Your task to perform on an android device: Check the weather Image 0: 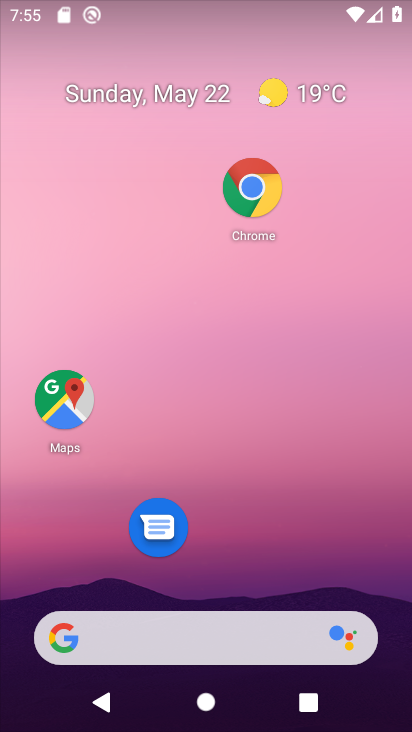
Step 0: click (280, 89)
Your task to perform on an android device: Check the weather Image 1: 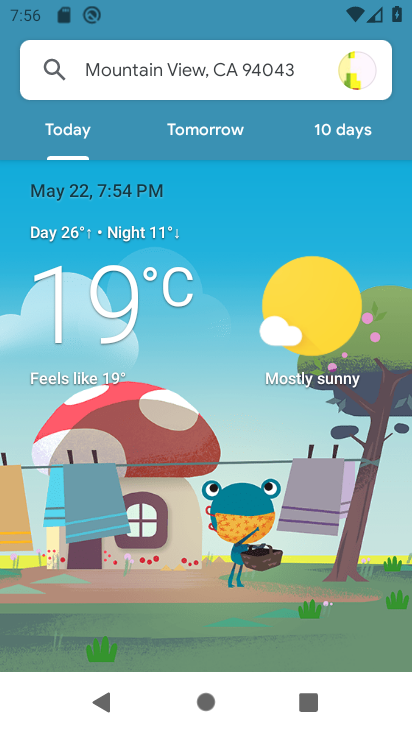
Step 1: drag from (214, 623) to (242, 143)
Your task to perform on an android device: Check the weather Image 2: 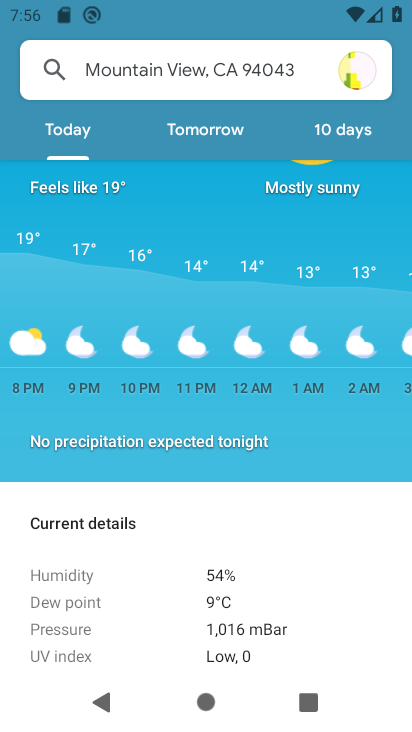
Step 2: drag from (361, 343) to (24, 352)
Your task to perform on an android device: Check the weather Image 3: 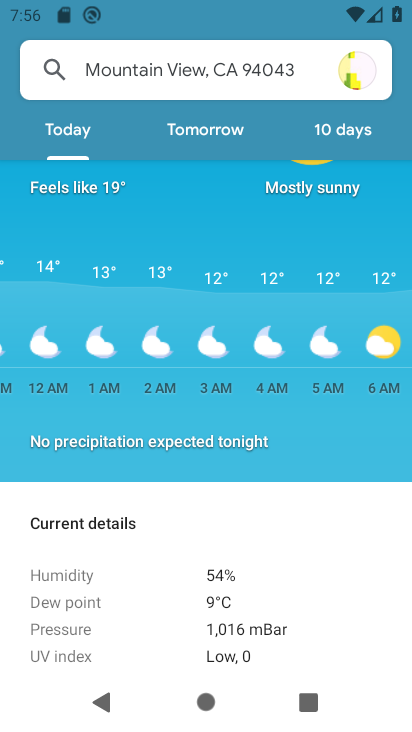
Step 3: drag from (385, 346) to (97, 355)
Your task to perform on an android device: Check the weather Image 4: 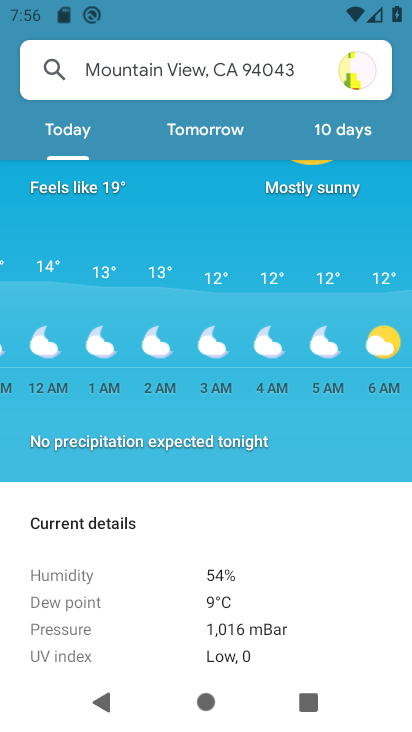
Step 4: drag from (381, 385) to (307, 385)
Your task to perform on an android device: Check the weather Image 5: 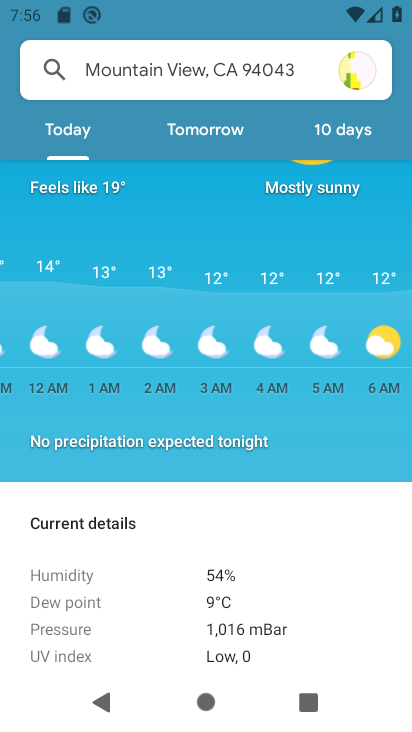
Step 5: drag from (385, 383) to (51, 369)
Your task to perform on an android device: Check the weather Image 6: 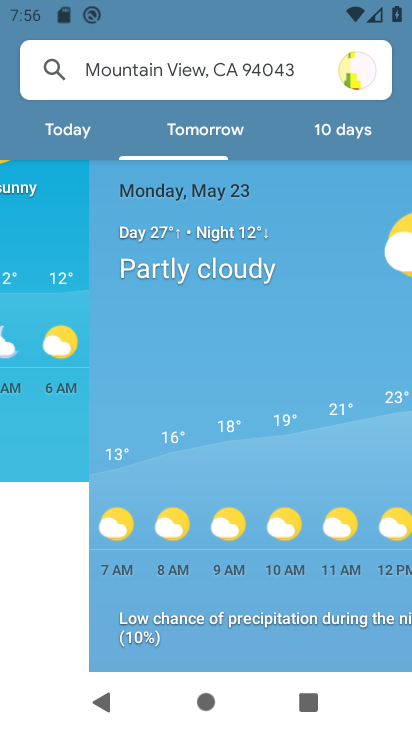
Step 6: click (49, 368)
Your task to perform on an android device: Check the weather Image 7: 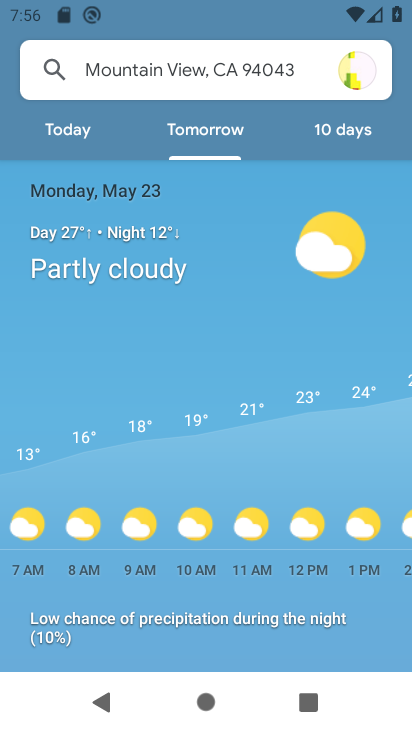
Step 7: click (57, 130)
Your task to perform on an android device: Check the weather Image 8: 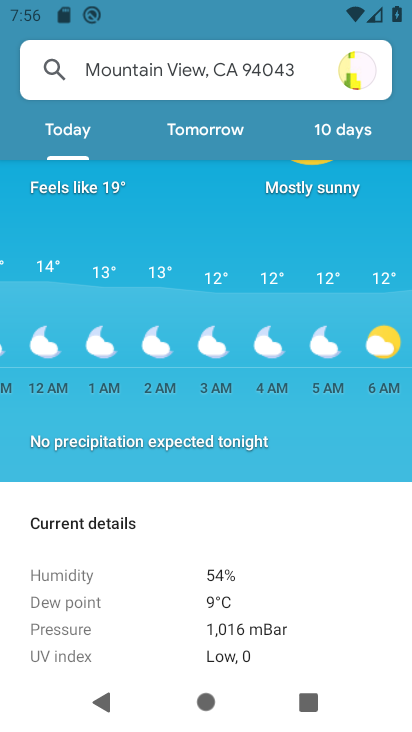
Step 8: task complete